Your task to perform on an android device: allow notifications from all sites in the chrome app Image 0: 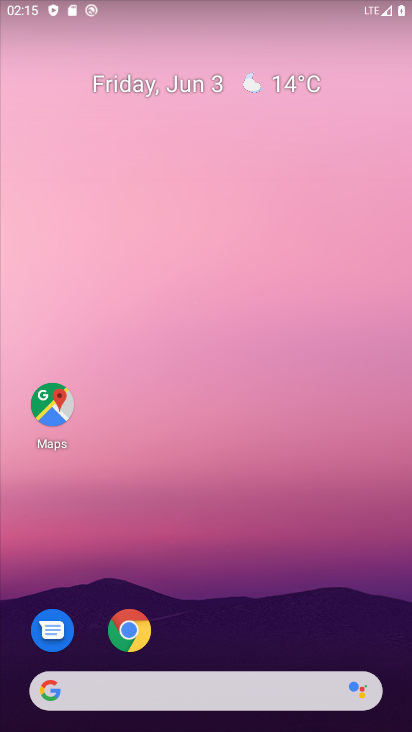
Step 0: click (145, 622)
Your task to perform on an android device: allow notifications from all sites in the chrome app Image 1: 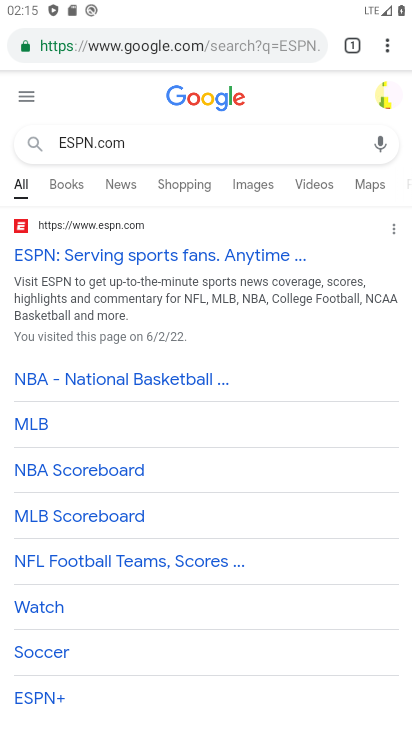
Step 1: click (386, 47)
Your task to perform on an android device: allow notifications from all sites in the chrome app Image 2: 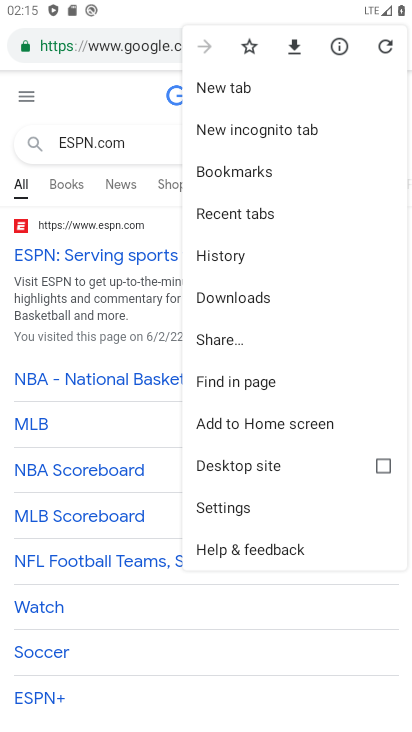
Step 2: click (237, 500)
Your task to perform on an android device: allow notifications from all sites in the chrome app Image 3: 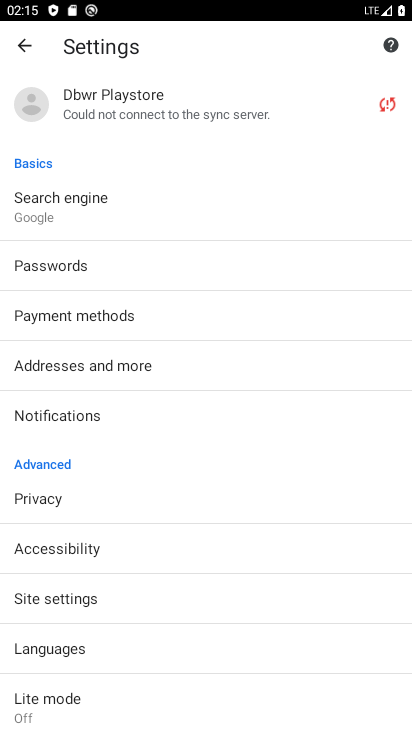
Step 3: click (67, 599)
Your task to perform on an android device: allow notifications from all sites in the chrome app Image 4: 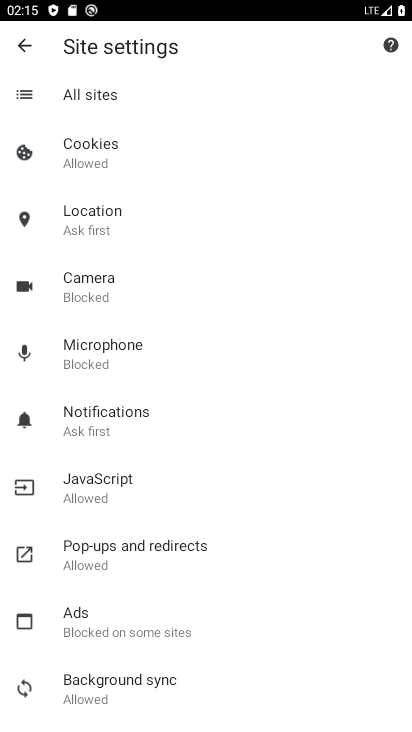
Step 4: click (98, 414)
Your task to perform on an android device: allow notifications from all sites in the chrome app Image 5: 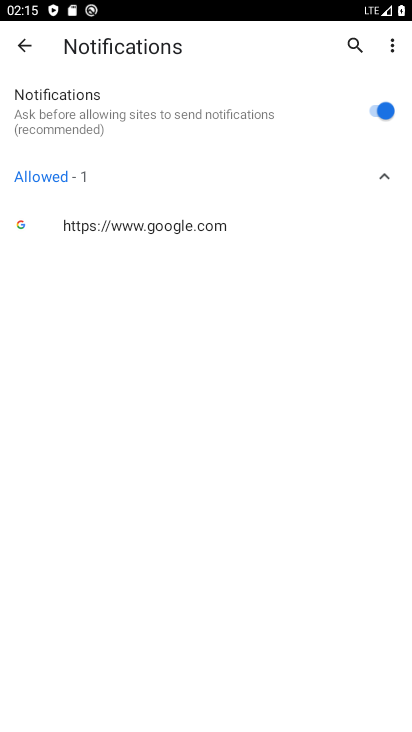
Step 5: task complete